Your task to perform on an android device: Open network settings Image 0: 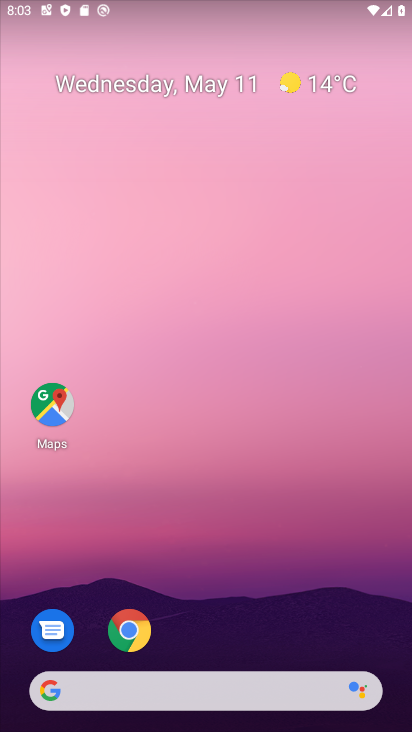
Step 0: drag from (230, 658) to (193, 53)
Your task to perform on an android device: Open network settings Image 1: 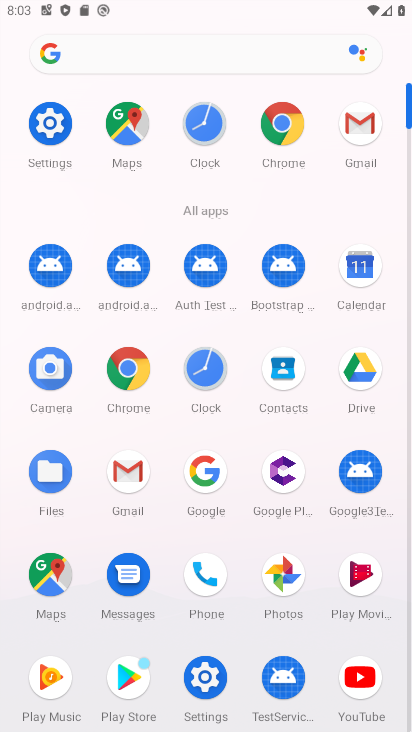
Step 1: click (48, 117)
Your task to perform on an android device: Open network settings Image 2: 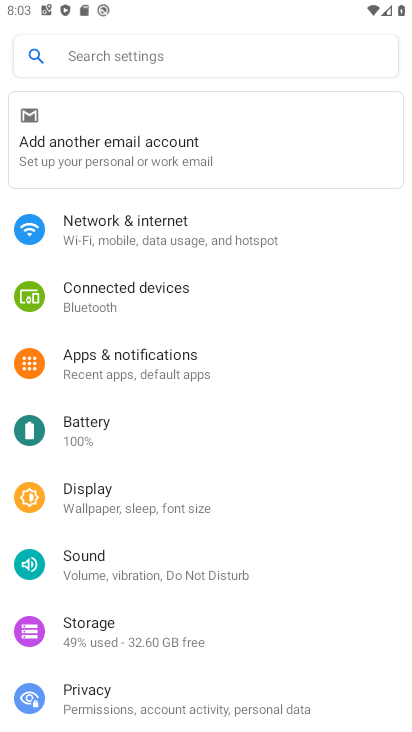
Step 2: click (85, 222)
Your task to perform on an android device: Open network settings Image 3: 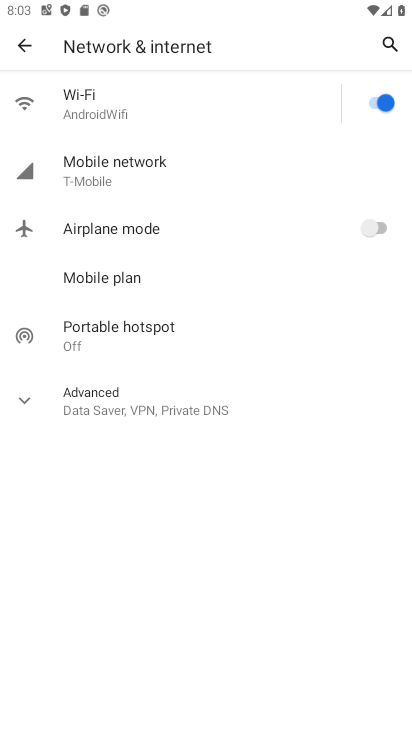
Step 3: click (71, 180)
Your task to perform on an android device: Open network settings Image 4: 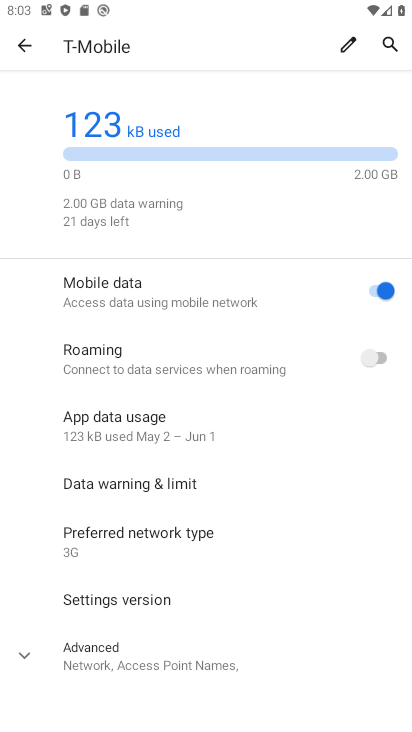
Step 4: task complete